Your task to perform on an android device: find which apps use the phone's location Image 0: 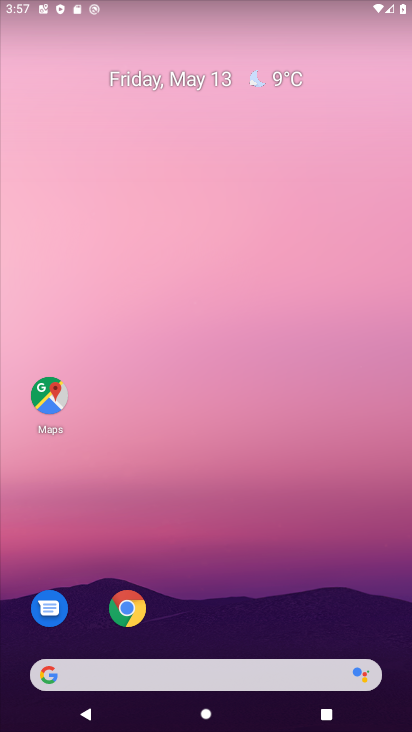
Step 0: drag from (215, 659) to (243, 204)
Your task to perform on an android device: find which apps use the phone's location Image 1: 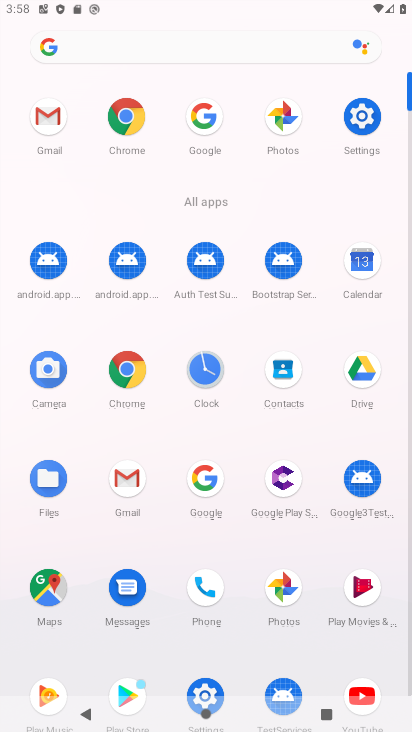
Step 1: click (366, 119)
Your task to perform on an android device: find which apps use the phone's location Image 2: 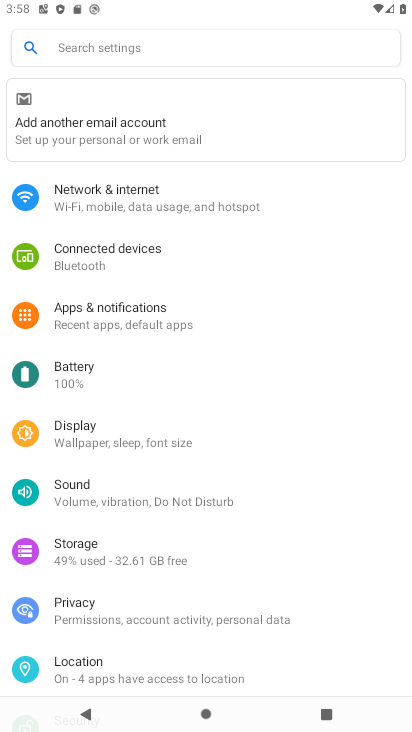
Step 2: drag from (144, 640) to (172, 277)
Your task to perform on an android device: find which apps use the phone's location Image 3: 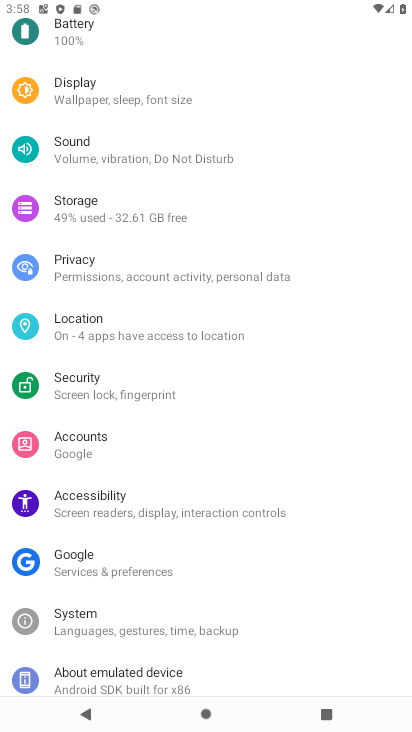
Step 3: click (91, 329)
Your task to perform on an android device: find which apps use the phone's location Image 4: 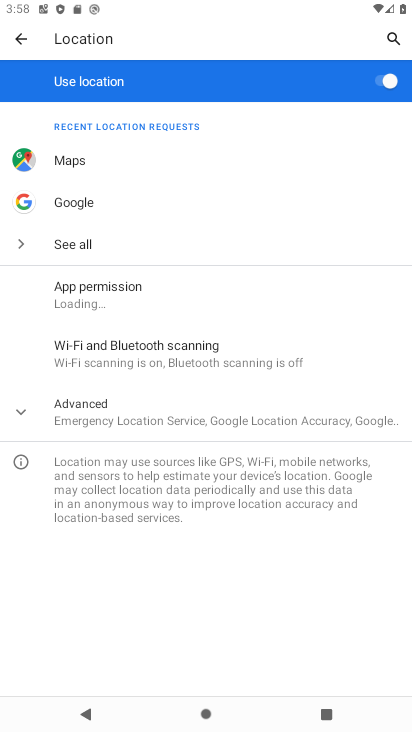
Step 4: click (90, 294)
Your task to perform on an android device: find which apps use the phone's location Image 5: 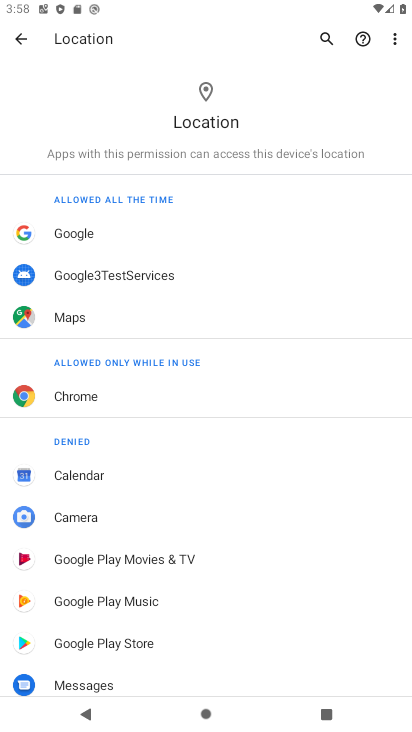
Step 5: click (173, 216)
Your task to perform on an android device: find which apps use the phone's location Image 6: 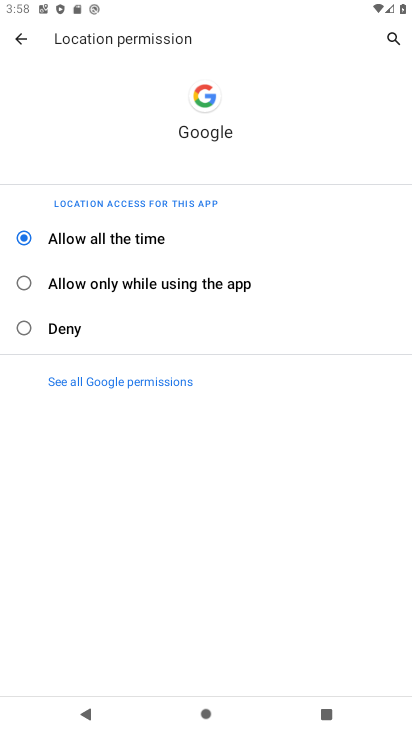
Step 6: click (22, 39)
Your task to perform on an android device: find which apps use the phone's location Image 7: 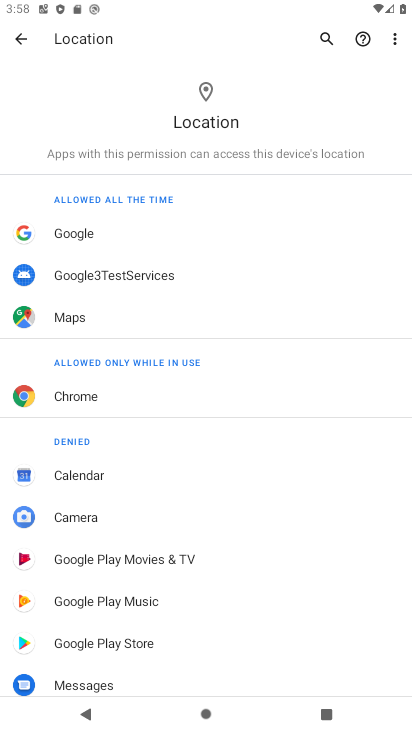
Step 7: task complete